Your task to perform on an android device: Open Wikipedia Image 0: 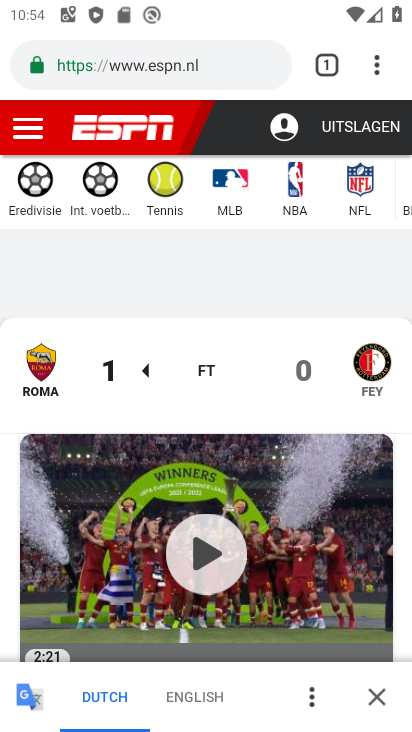
Step 0: click (206, 63)
Your task to perform on an android device: Open Wikipedia Image 1: 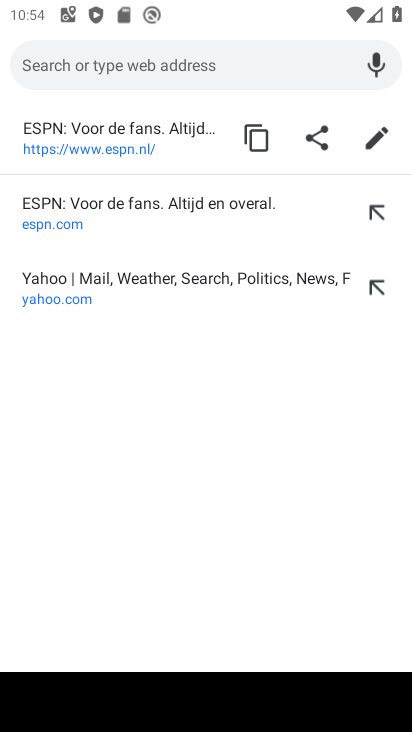
Step 1: type " Wikipedia"
Your task to perform on an android device: Open Wikipedia Image 2: 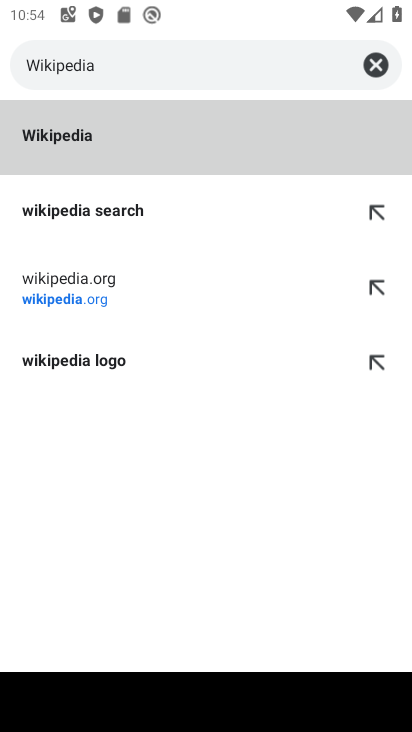
Step 2: click (67, 281)
Your task to perform on an android device: Open Wikipedia Image 3: 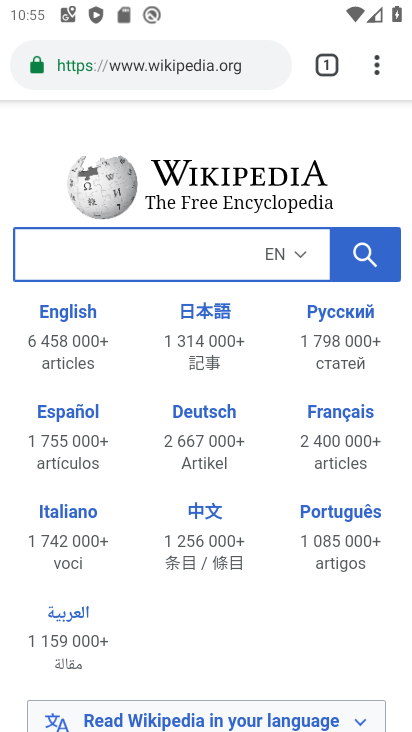
Step 3: task complete